Your task to perform on an android device: show emergency info Image 0: 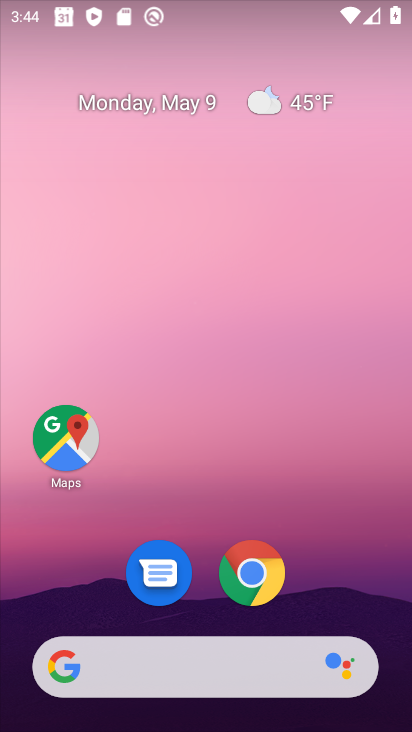
Step 0: drag from (349, 630) to (348, 0)
Your task to perform on an android device: show emergency info Image 1: 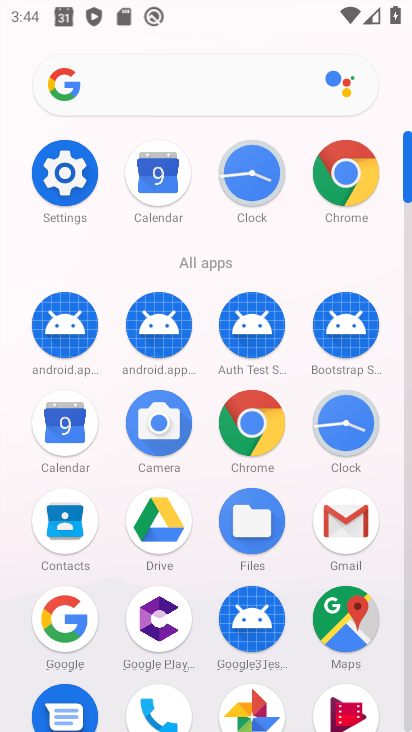
Step 1: click (66, 181)
Your task to perform on an android device: show emergency info Image 2: 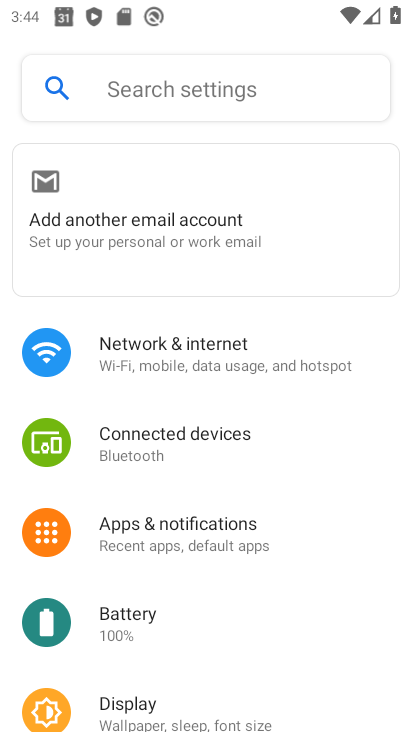
Step 2: drag from (380, 595) to (353, 0)
Your task to perform on an android device: show emergency info Image 3: 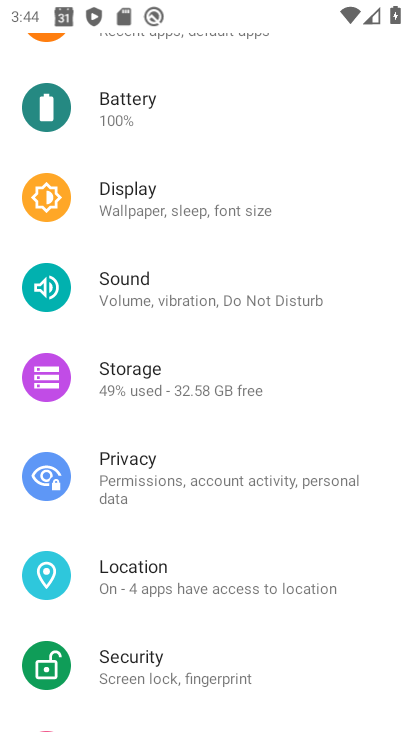
Step 3: drag from (356, 660) to (332, 117)
Your task to perform on an android device: show emergency info Image 4: 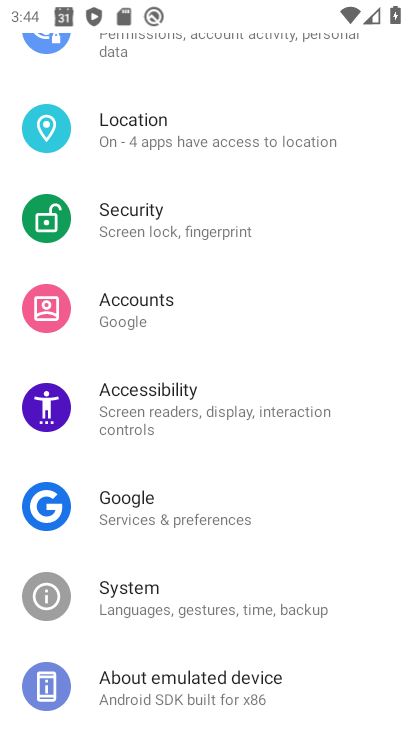
Step 4: click (227, 696)
Your task to perform on an android device: show emergency info Image 5: 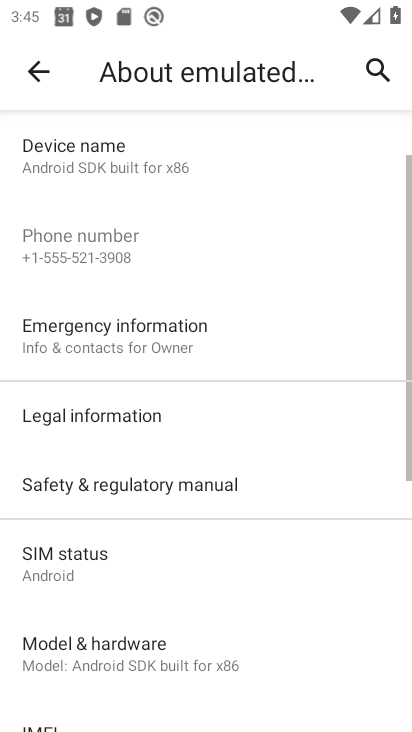
Step 5: click (109, 347)
Your task to perform on an android device: show emergency info Image 6: 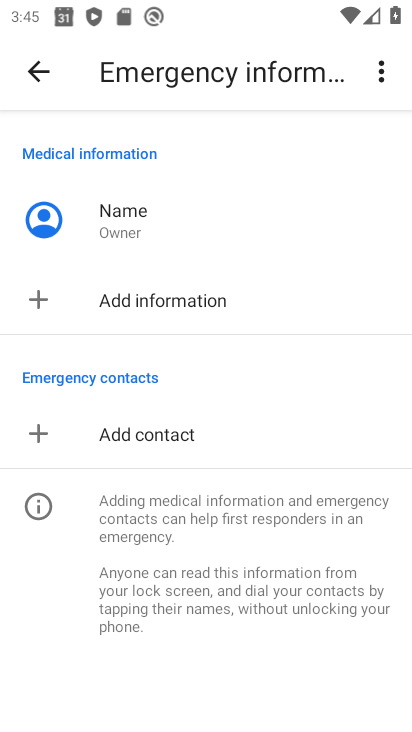
Step 6: task complete